Your task to perform on an android device: open a new tab in the chrome app Image 0: 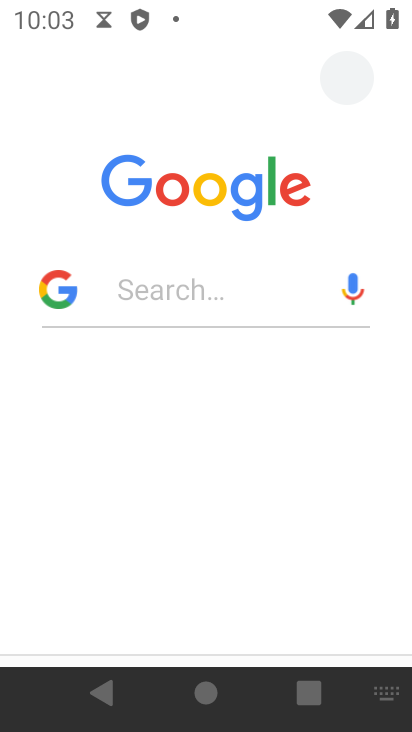
Step 0: press back button
Your task to perform on an android device: open a new tab in the chrome app Image 1: 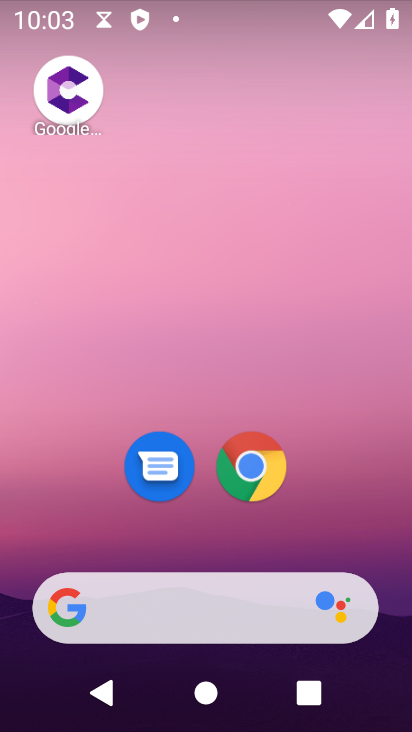
Step 1: drag from (381, 539) to (191, 8)
Your task to perform on an android device: open a new tab in the chrome app Image 2: 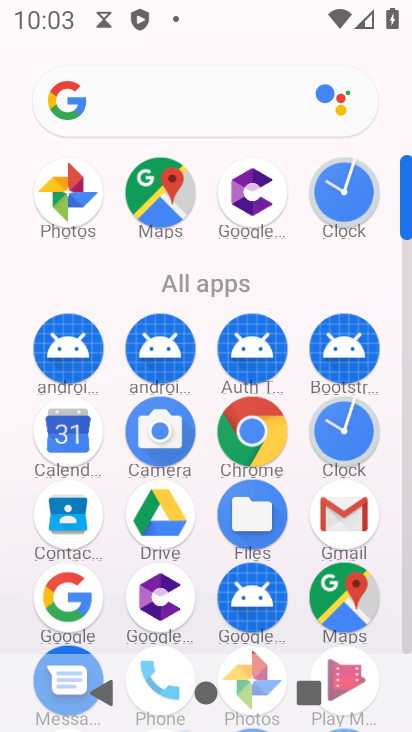
Step 2: drag from (12, 519) to (2, 172)
Your task to perform on an android device: open a new tab in the chrome app Image 3: 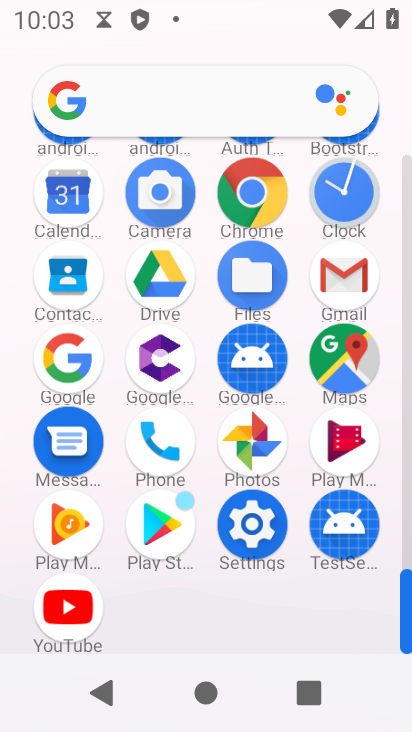
Step 3: click (250, 182)
Your task to perform on an android device: open a new tab in the chrome app Image 4: 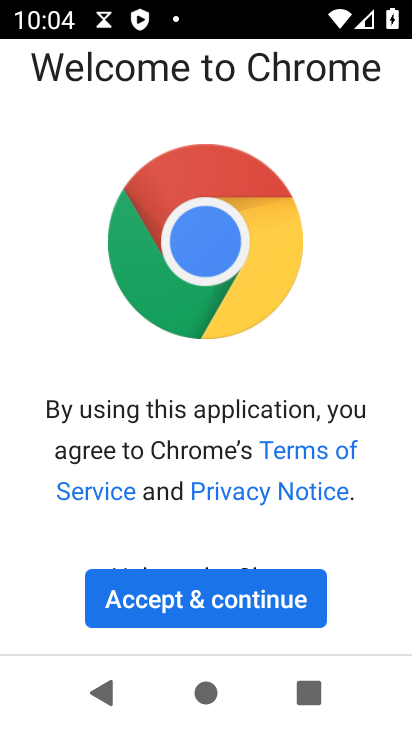
Step 4: click (196, 597)
Your task to perform on an android device: open a new tab in the chrome app Image 5: 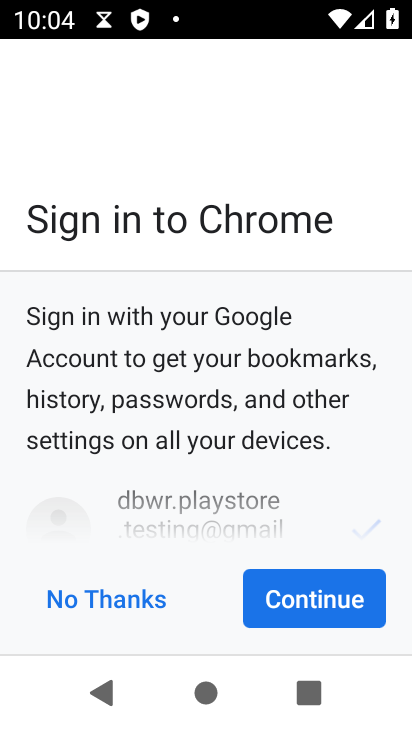
Step 5: click (301, 575)
Your task to perform on an android device: open a new tab in the chrome app Image 6: 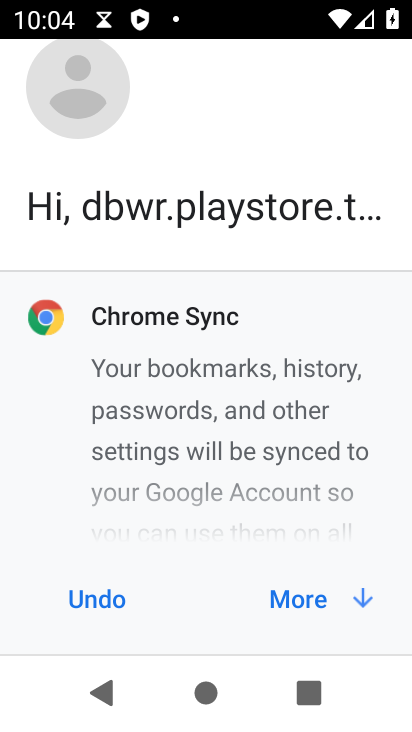
Step 6: click (301, 599)
Your task to perform on an android device: open a new tab in the chrome app Image 7: 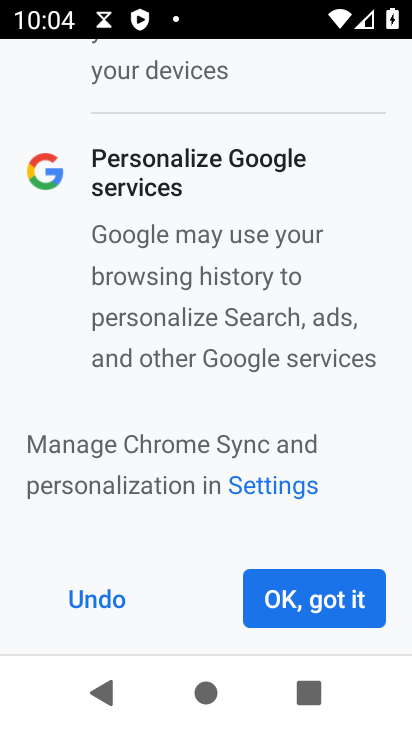
Step 7: click (301, 599)
Your task to perform on an android device: open a new tab in the chrome app Image 8: 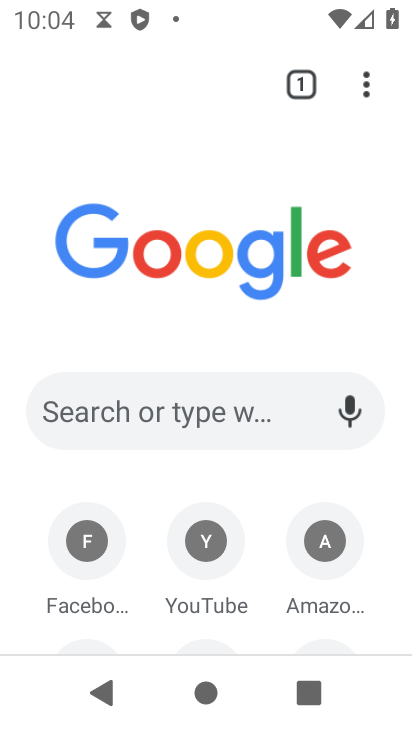
Step 8: task complete